Your task to perform on an android device: toggle notification dots Image 0: 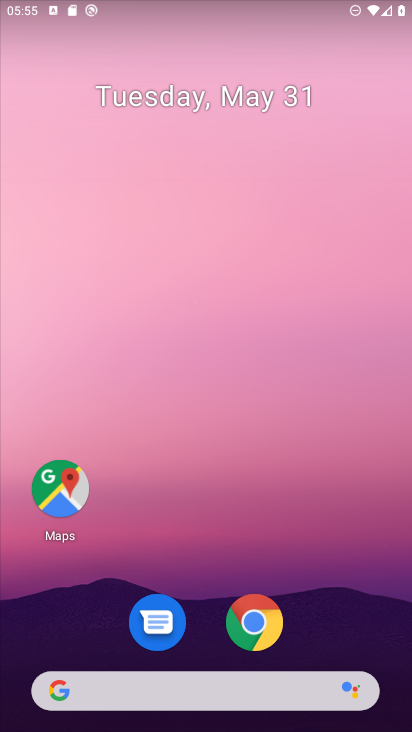
Step 0: drag from (178, 660) to (215, 26)
Your task to perform on an android device: toggle notification dots Image 1: 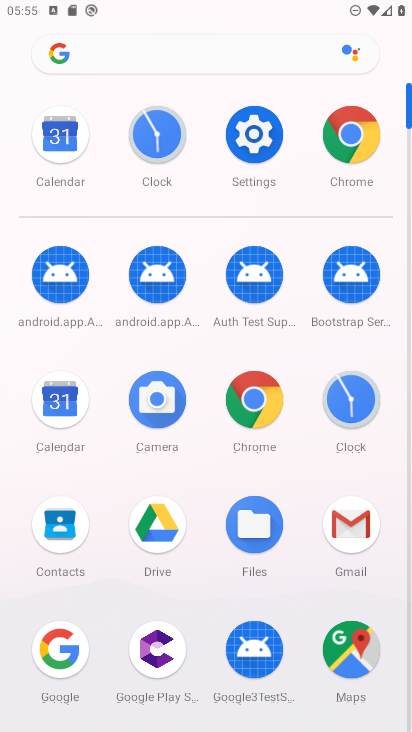
Step 1: click (261, 146)
Your task to perform on an android device: toggle notification dots Image 2: 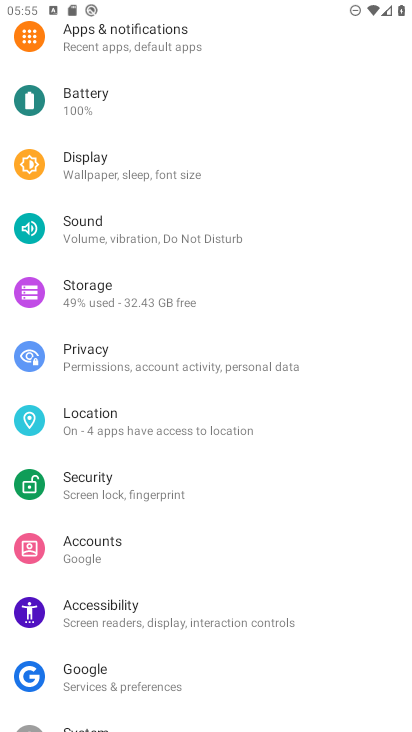
Step 2: click (173, 35)
Your task to perform on an android device: toggle notification dots Image 3: 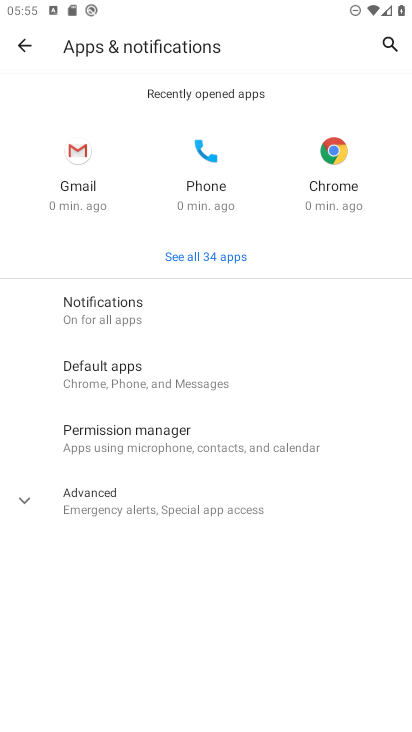
Step 3: click (121, 320)
Your task to perform on an android device: toggle notification dots Image 4: 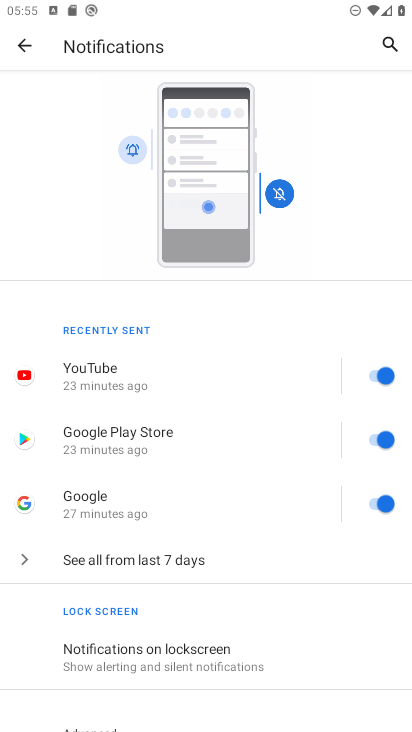
Step 4: drag from (285, 655) to (324, 123)
Your task to perform on an android device: toggle notification dots Image 5: 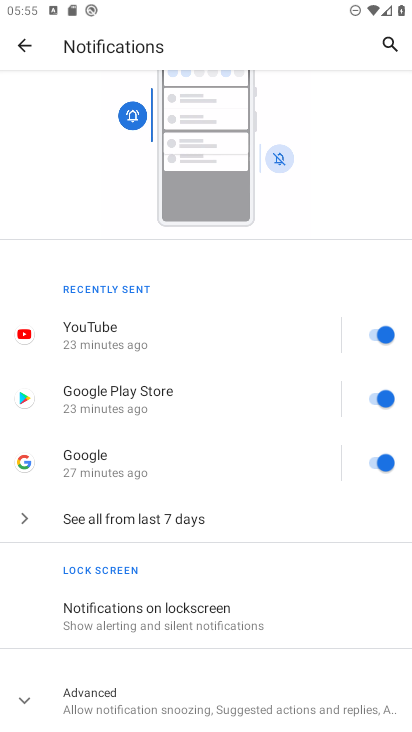
Step 5: click (217, 621)
Your task to perform on an android device: toggle notification dots Image 6: 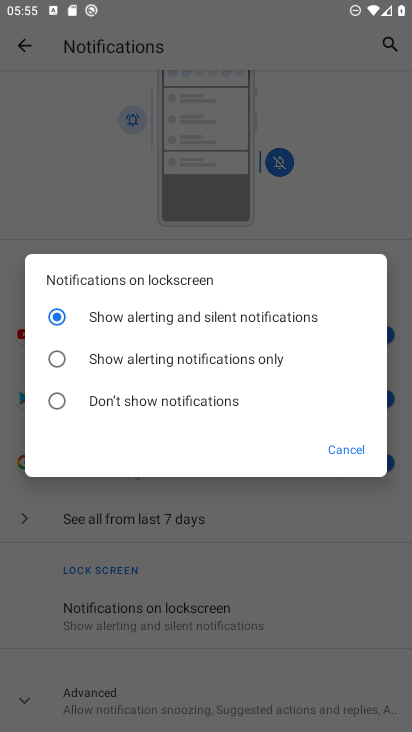
Step 6: click (351, 457)
Your task to perform on an android device: toggle notification dots Image 7: 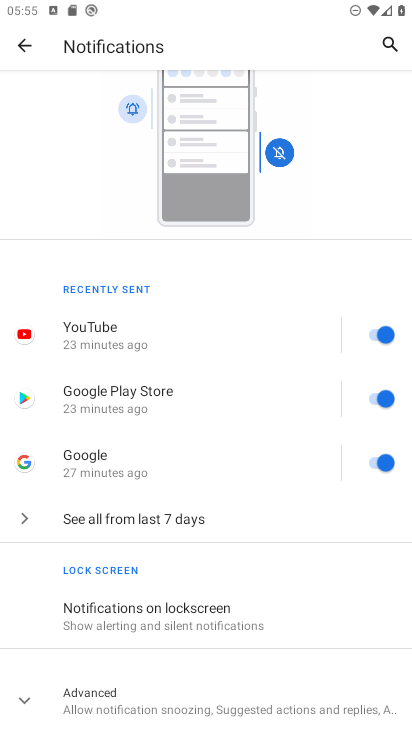
Step 7: click (278, 697)
Your task to perform on an android device: toggle notification dots Image 8: 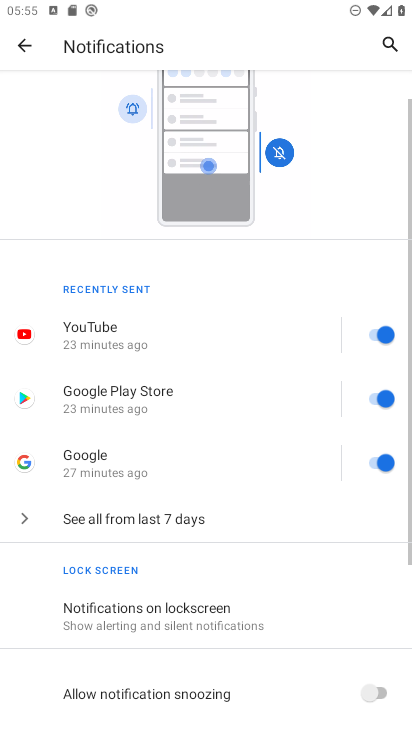
Step 8: drag from (285, 703) to (289, 124)
Your task to perform on an android device: toggle notification dots Image 9: 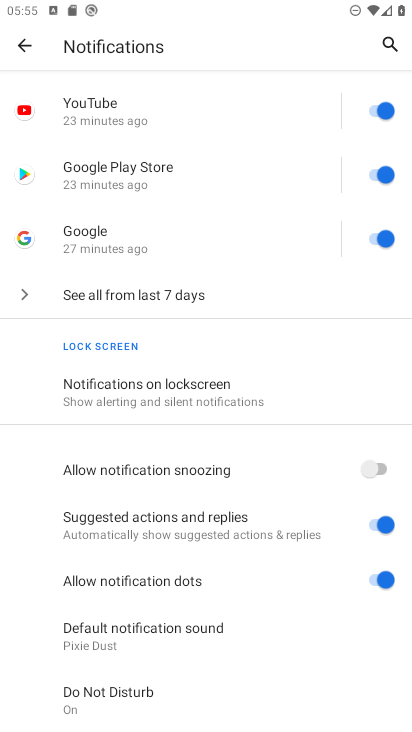
Step 9: click (390, 578)
Your task to perform on an android device: toggle notification dots Image 10: 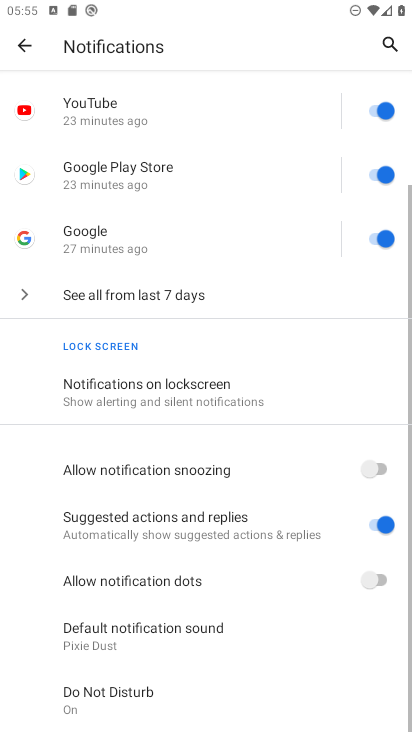
Step 10: task complete